Your task to perform on an android device: turn off priority inbox in the gmail app Image 0: 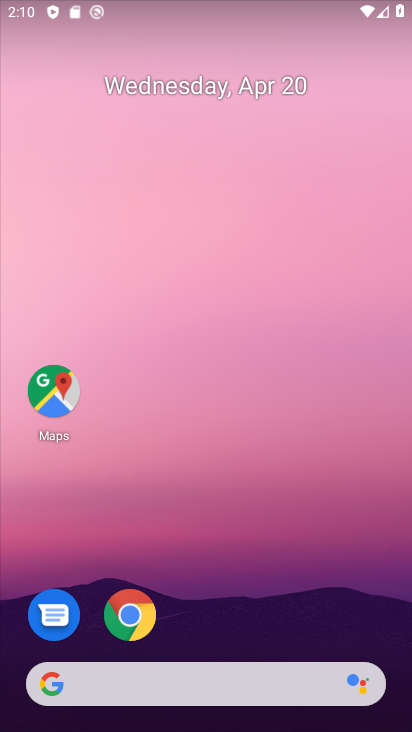
Step 0: drag from (358, 625) to (330, 102)
Your task to perform on an android device: turn off priority inbox in the gmail app Image 1: 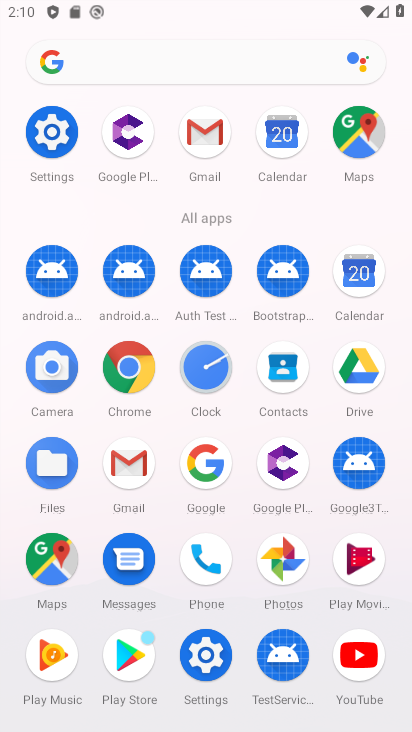
Step 1: click (194, 123)
Your task to perform on an android device: turn off priority inbox in the gmail app Image 2: 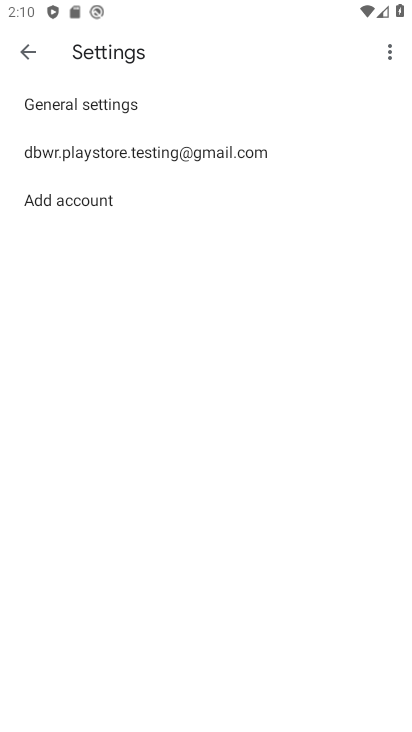
Step 2: click (142, 153)
Your task to perform on an android device: turn off priority inbox in the gmail app Image 3: 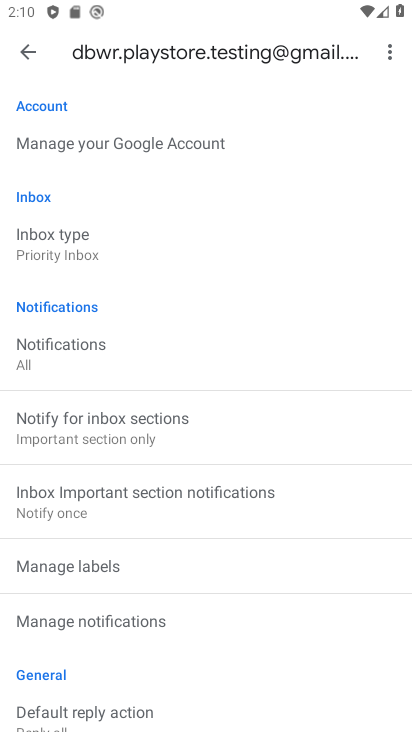
Step 3: drag from (238, 549) to (203, 531)
Your task to perform on an android device: turn off priority inbox in the gmail app Image 4: 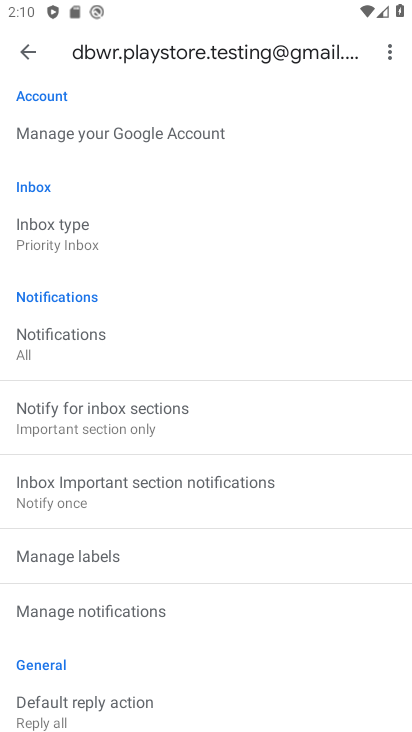
Step 4: click (69, 236)
Your task to perform on an android device: turn off priority inbox in the gmail app Image 5: 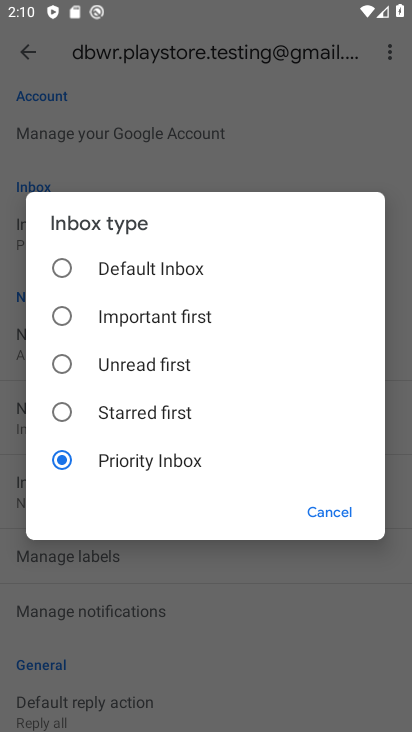
Step 5: click (104, 259)
Your task to perform on an android device: turn off priority inbox in the gmail app Image 6: 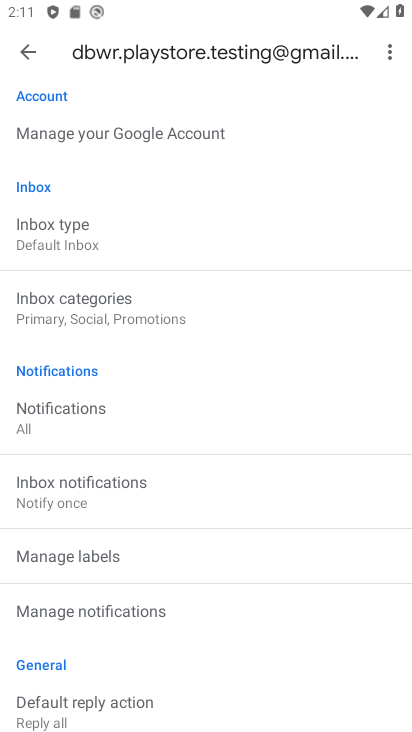
Step 6: task complete